Your task to perform on an android device: open a new tab in the chrome app Image 0: 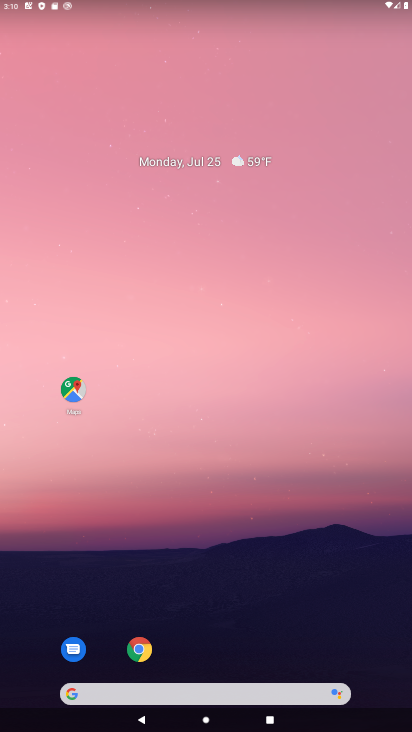
Step 0: click (129, 653)
Your task to perform on an android device: open a new tab in the chrome app Image 1: 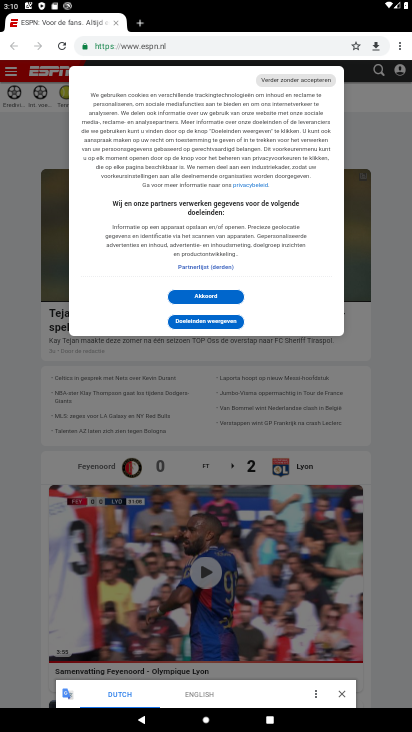
Step 1: click (406, 45)
Your task to perform on an android device: open a new tab in the chrome app Image 2: 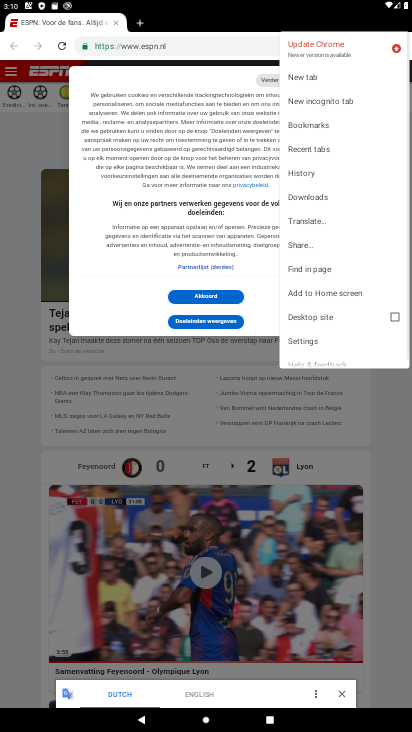
Step 2: click (344, 82)
Your task to perform on an android device: open a new tab in the chrome app Image 3: 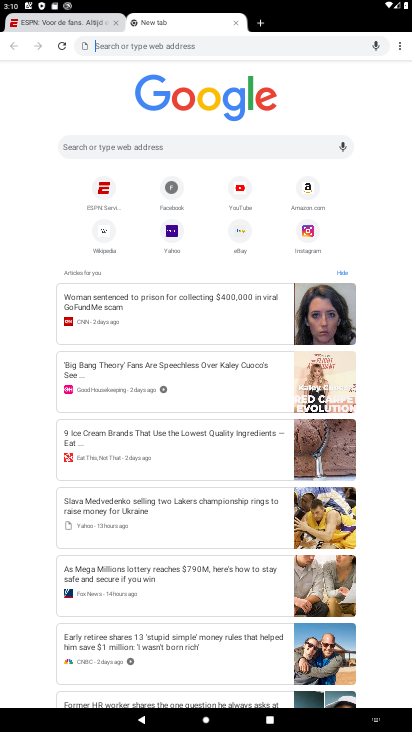
Step 3: task complete